Your task to perform on an android device: Go to CNN.com Image 0: 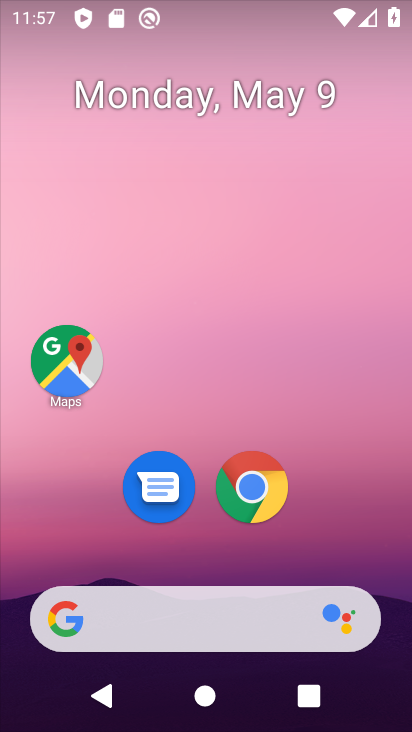
Step 0: click (270, 506)
Your task to perform on an android device: Go to CNN.com Image 1: 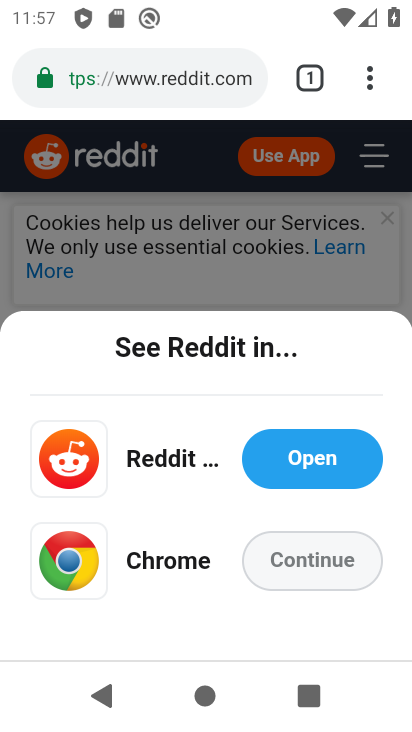
Step 1: click (342, 460)
Your task to perform on an android device: Go to CNN.com Image 2: 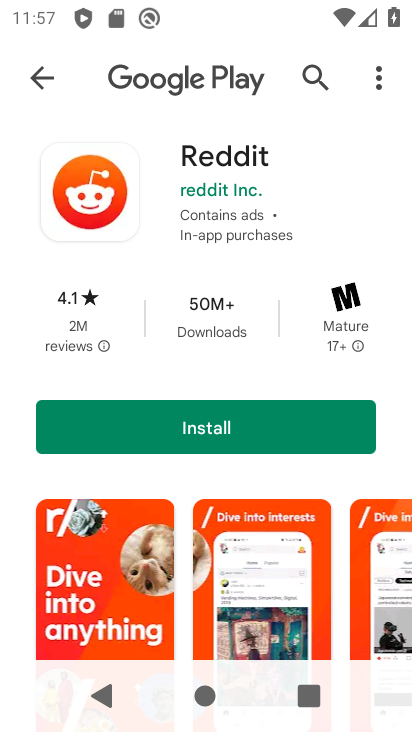
Step 2: press home button
Your task to perform on an android device: Go to CNN.com Image 3: 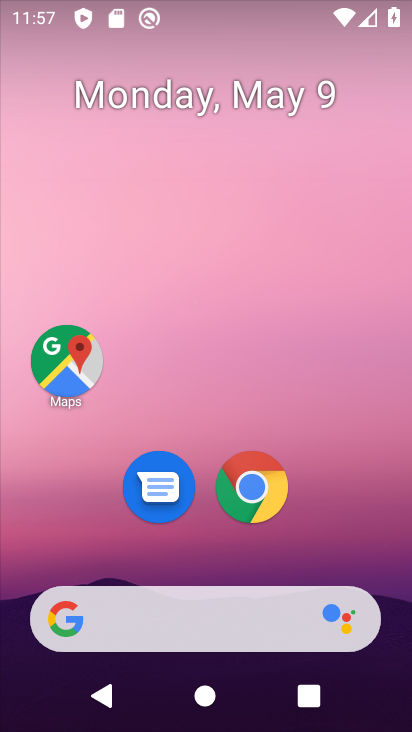
Step 3: click (284, 473)
Your task to perform on an android device: Go to CNN.com Image 4: 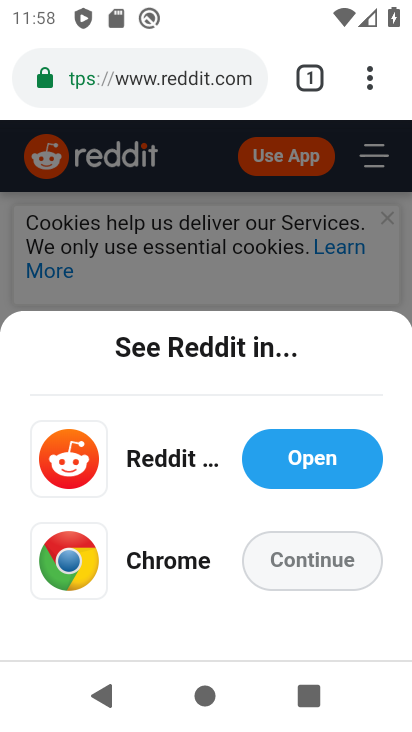
Step 4: click (274, 277)
Your task to perform on an android device: Go to CNN.com Image 5: 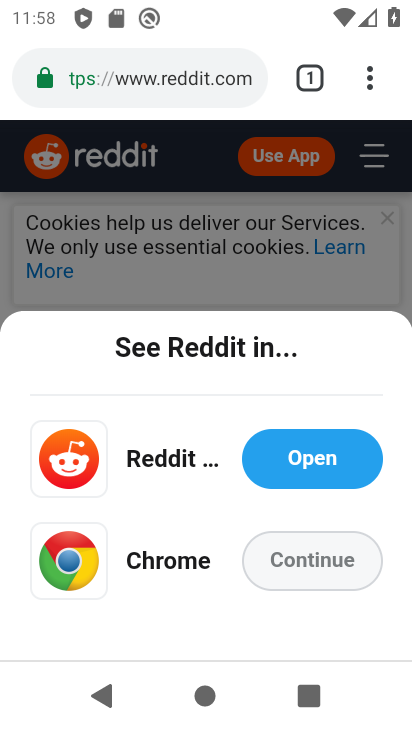
Step 5: click (237, 87)
Your task to perform on an android device: Go to CNN.com Image 6: 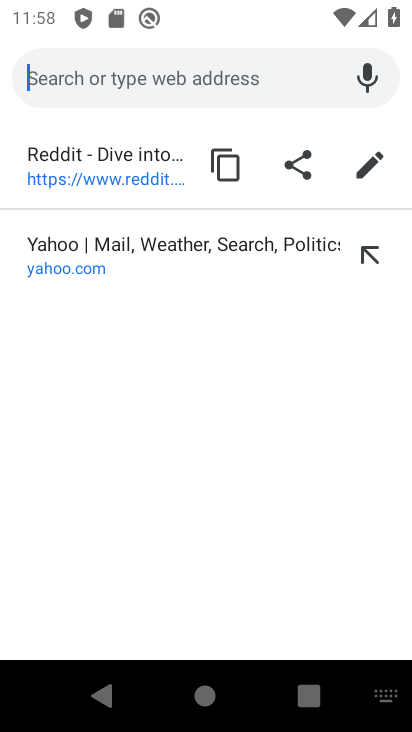
Step 6: type "cnn.com"
Your task to perform on an android device: Go to CNN.com Image 7: 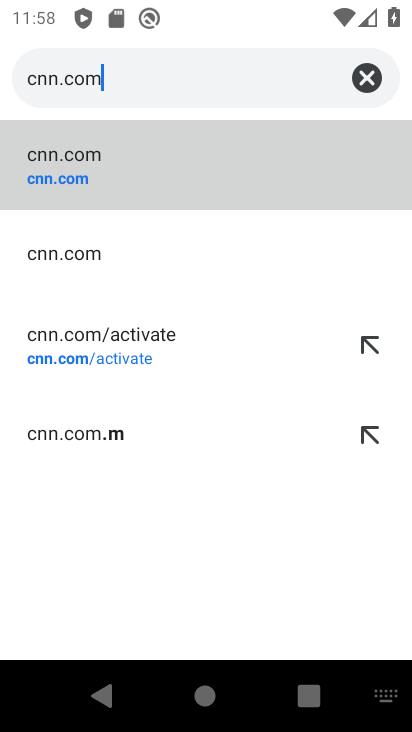
Step 7: click (71, 192)
Your task to perform on an android device: Go to CNN.com Image 8: 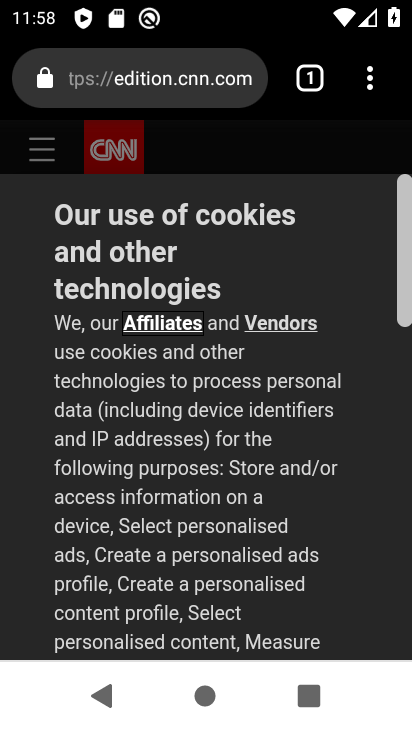
Step 8: task complete